Your task to perform on an android device: turn on priority inbox in the gmail app Image 0: 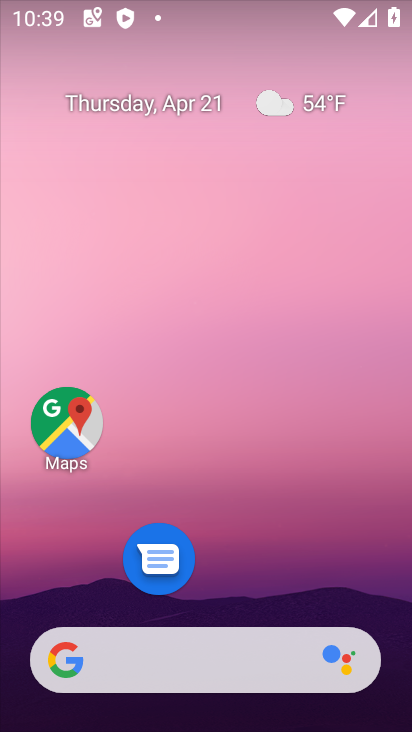
Step 0: drag from (267, 513) to (256, 108)
Your task to perform on an android device: turn on priority inbox in the gmail app Image 1: 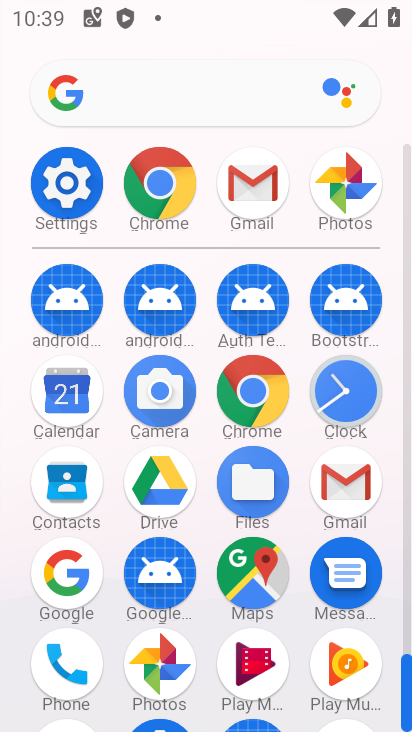
Step 1: click (263, 177)
Your task to perform on an android device: turn on priority inbox in the gmail app Image 2: 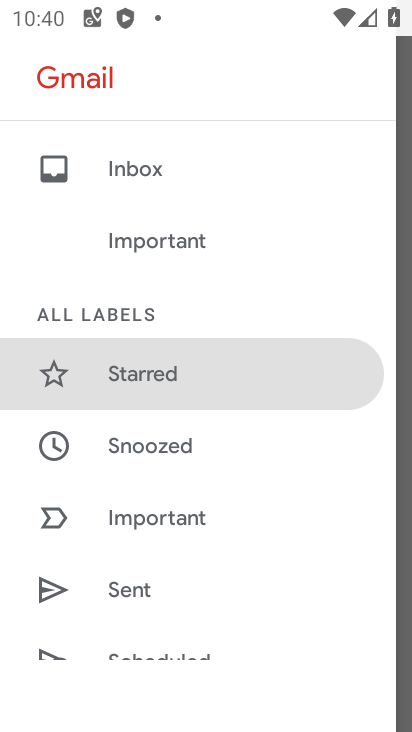
Step 2: drag from (207, 636) to (247, 162)
Your task to perform on an android device: turn on priority inbox in the gmail app Image 3: 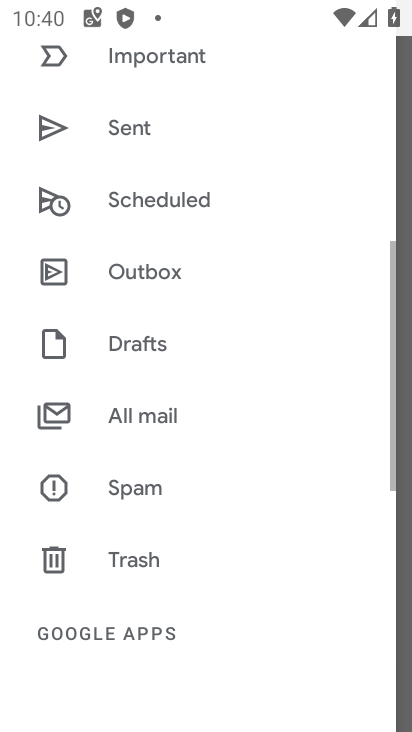
Step 3: drag from (194, 564) to (251, 49)
Your task to perform on an android device: turn on priority inbox in the gmail app Image 4: 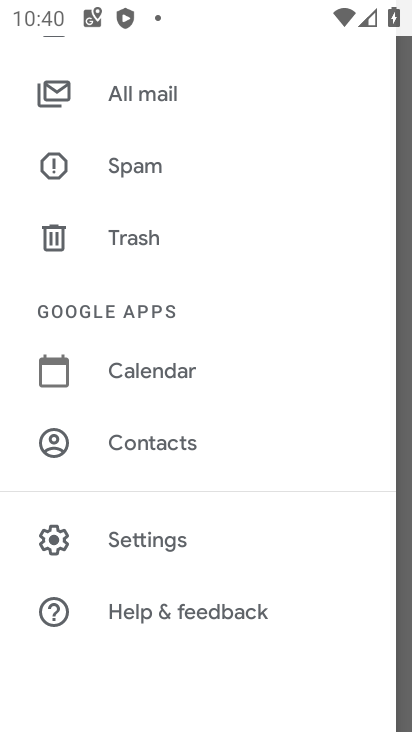
Step 4: click (151, 541)
Your task to perform on an android device: turn on priority inbox in the gmail app Image 5: 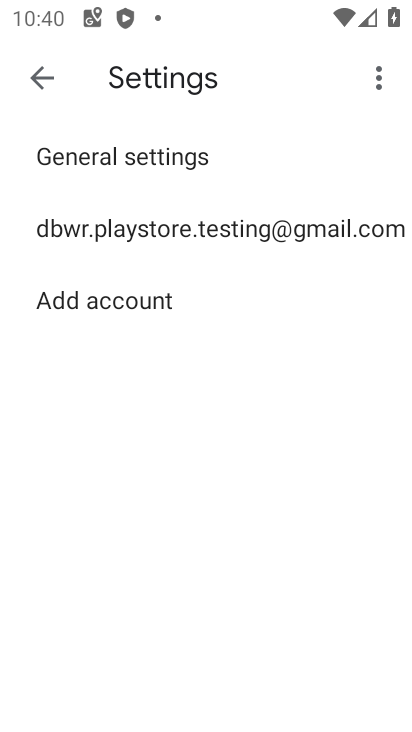
Step 5: click (234, 221)
Your task to perform on an android device: turn on priority inbox in the gmail app Image 6: 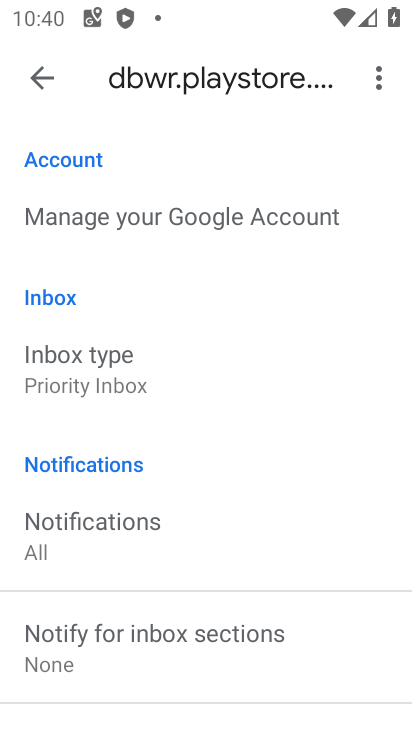
Step 6: click (126, 378)
Your task to perform on an android device: turn on priority inbox in the gmail app Image 7: 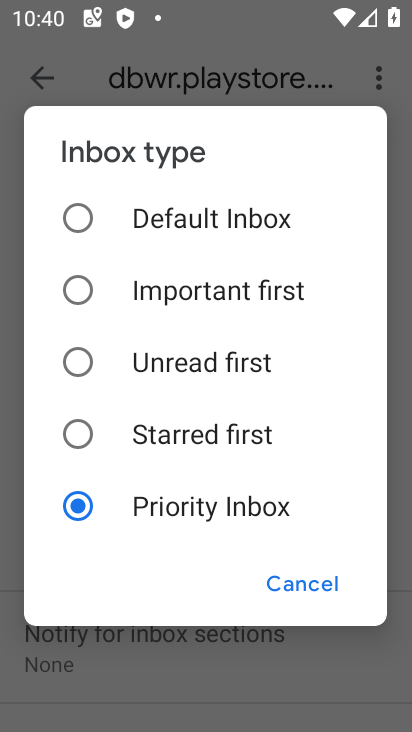
Step 7: task complete